Your task to perform on an android device: change notifications settings Image 0: 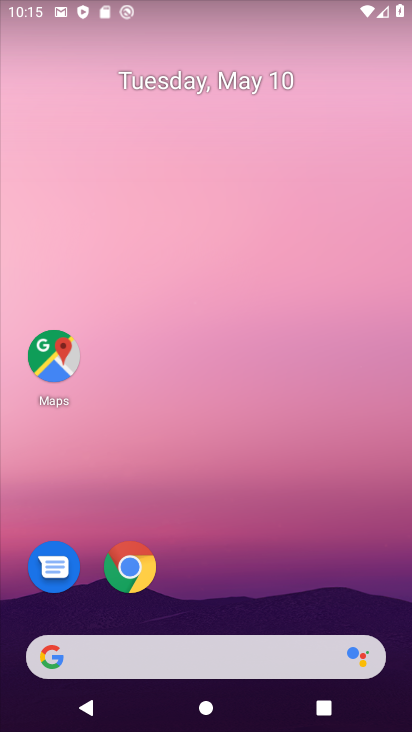
Step 0: drag from (203, 482) to (286, 30)
Your task to perform on an android device: change notifications settings Image 1: 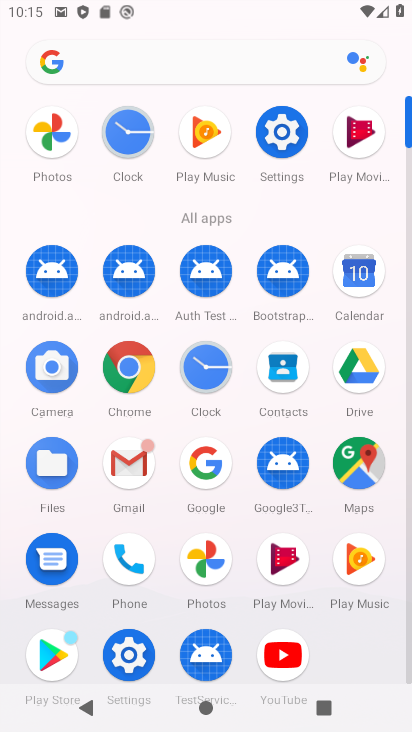
Step 1: click (277, 127)
Your task to perform on an android device: change notifications settings Image 2: 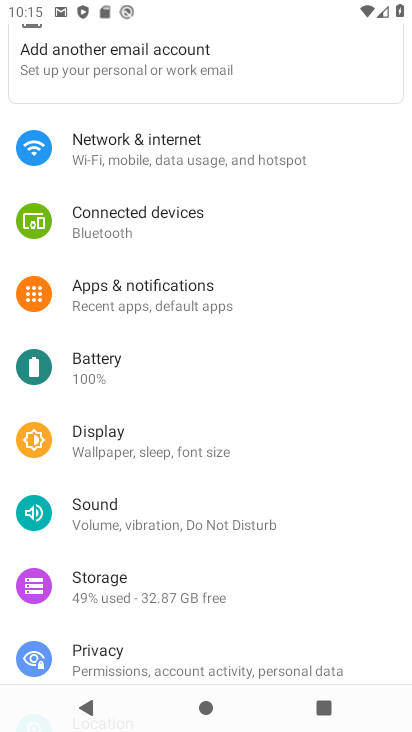
Step 2: click (189, 294)
Your task to perform on an android device: change notifications settings Image 3: 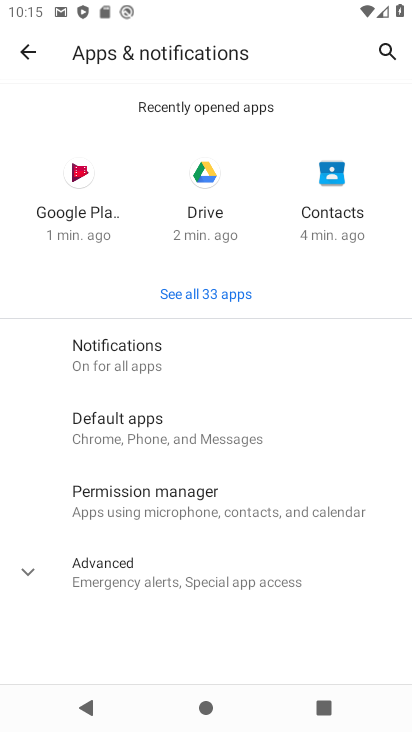
Step 3: click (150, 378)
Your task to perform on an android device: change notifications settings Image 4: 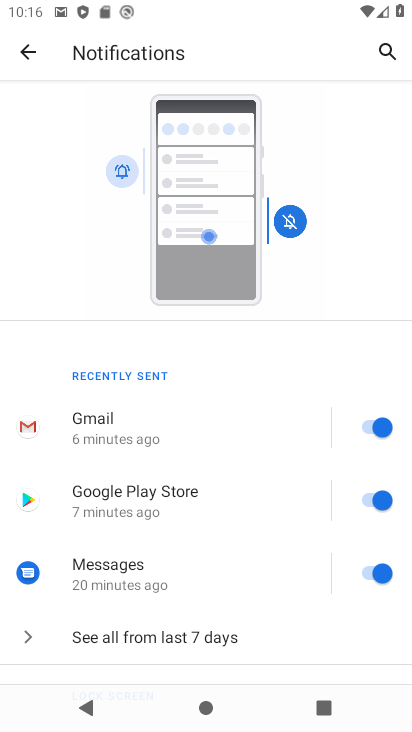
Step 4: click (366, 497)
Your task to perform on an android device: change notifications settings Image 5: 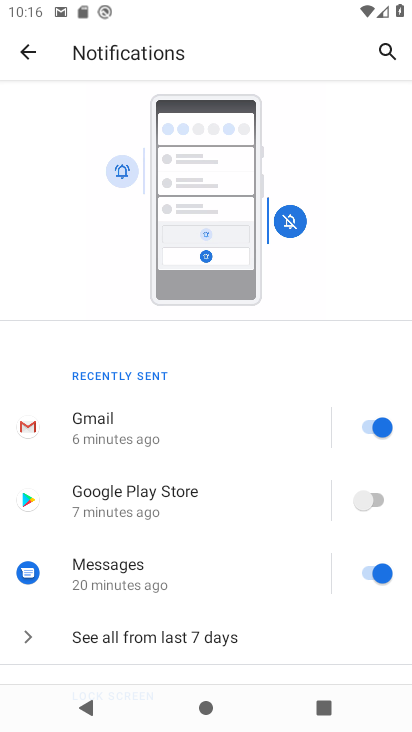
Step 5: click (376, 426)
Your task to perform on an android device: change notifications settings Image 6: 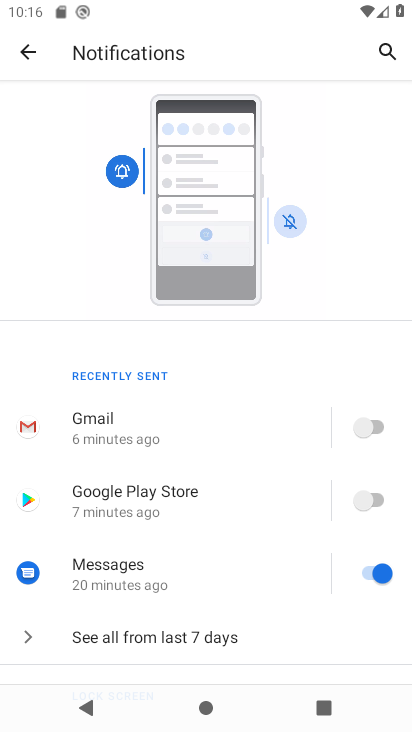
Step 6: task complete